Your task to perform on an android device: toggle improve location accuracy Image 0: 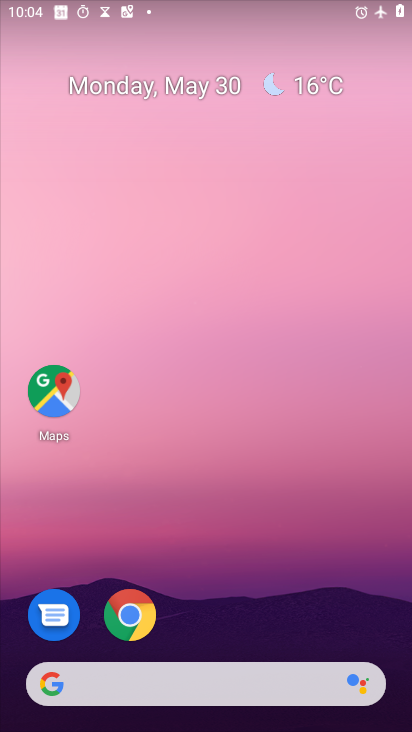
Step 0: drag from (275, 458) to (249, 47)
Your task to perform on an android device: toggle improve location accuracy Image 1: 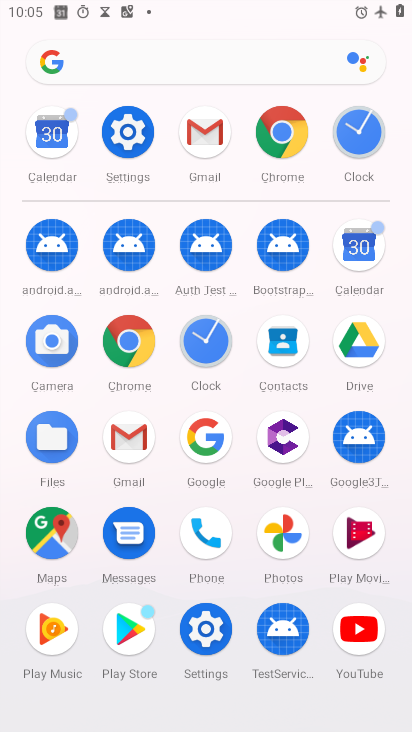
Step 1: click (123, 136)
Your task to perform on an android device: toggle improve location accuracy Image 2: 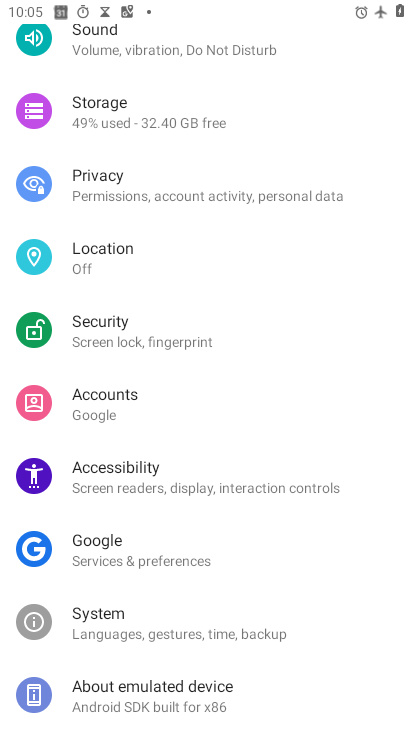
Step 2: click (114, 265)
Your task to perform on an android device: toggle improve location accuracy Image 3: 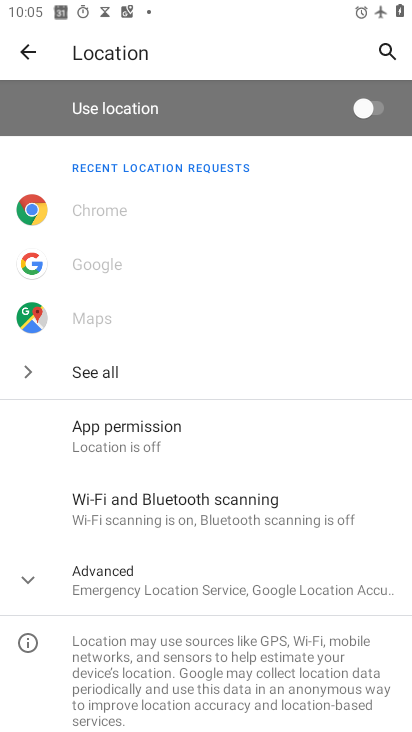
Step 3: click (139, 579)
Your task to perform on an android device: toggle improve location accuracy Image 4: 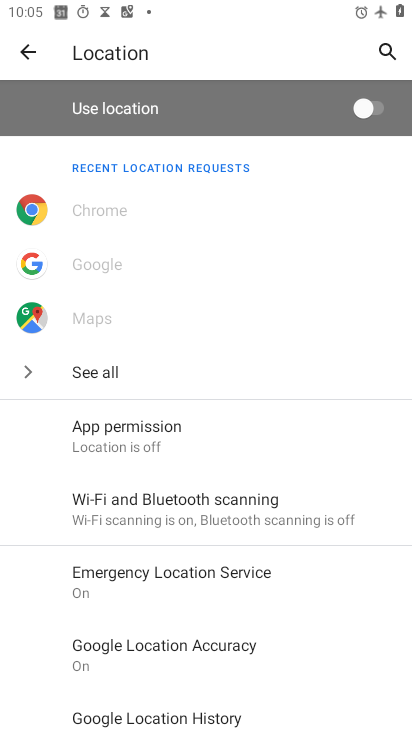
Step 4: drag from (233, 647) to (233, 402)
Your task to perform on an android device: toggle improve location accuracy Image 5: 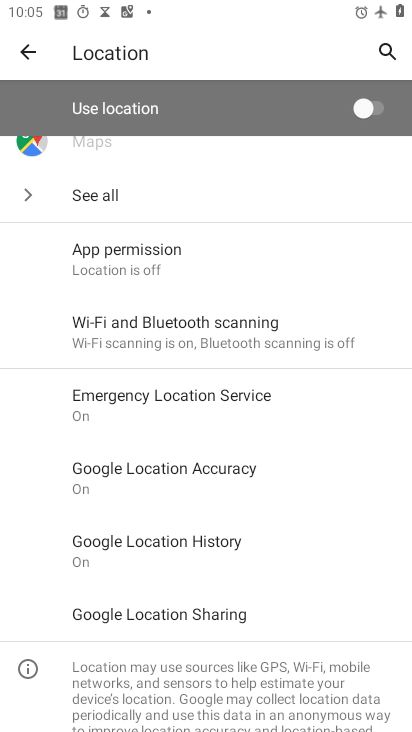
Step 5: click (192, 488)
Your task to perform on an android device: toggle improve location accuracy Image 6: 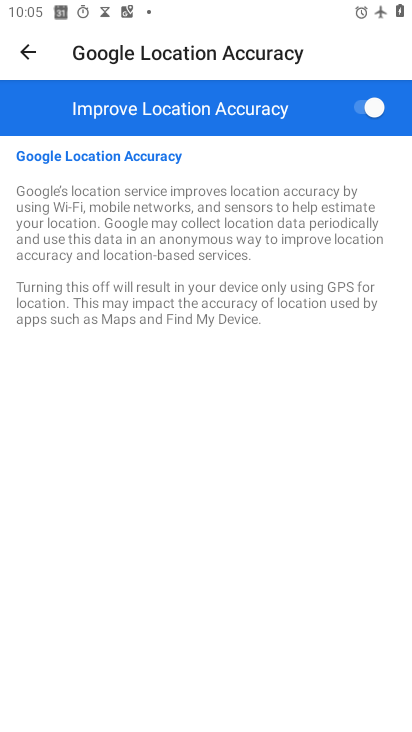
Step 6: click (366, 120)
Your task to perform on an android device: toggle improve location accuracy Image 7: 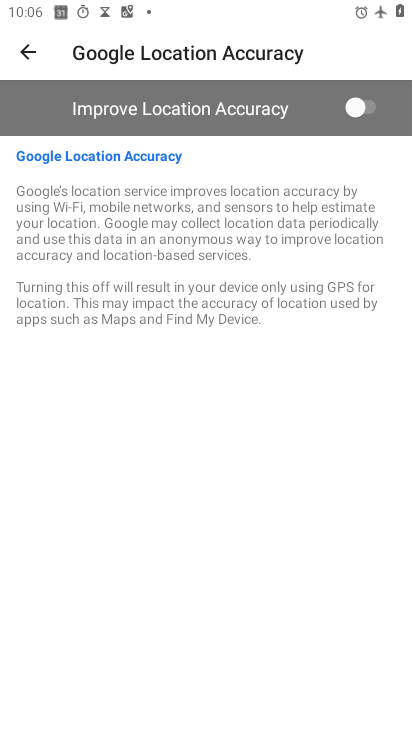
Step 7: task complete